Your task to perform on an android device: find snoozed emails in the gmail app Image 0: 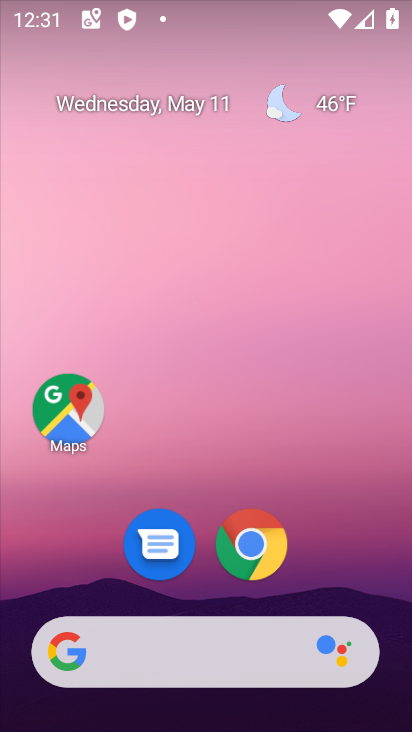
Step 0: drag from (322, 290) to (290, 141)
Your task to perform on an android device: find snoozed emails in the gmail app Image 1: 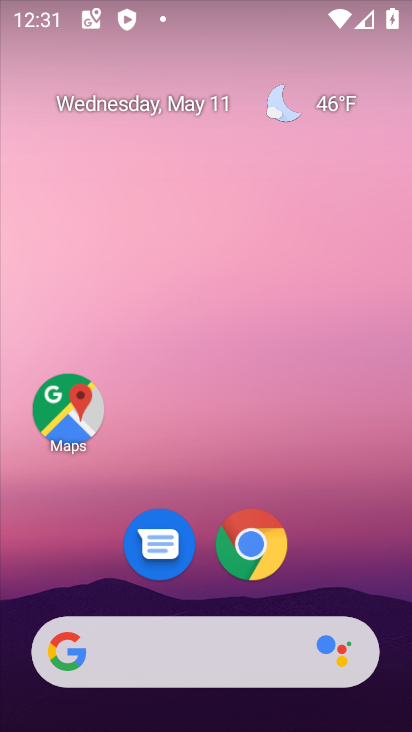
Step 1: drag from (387, 641) to (267, 183)
Your task to perform on an android device: find snoozed emails in the gmail app Image 2: 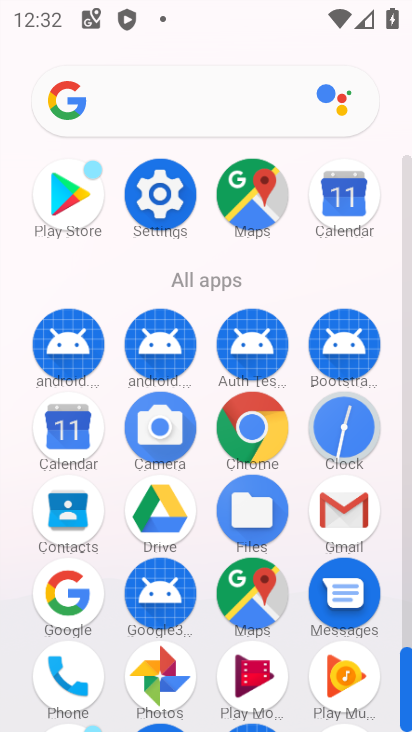
Step 2: click (340, 504)
Your task to perform on an android device: find snoozed emails in the gmail app Image 3: 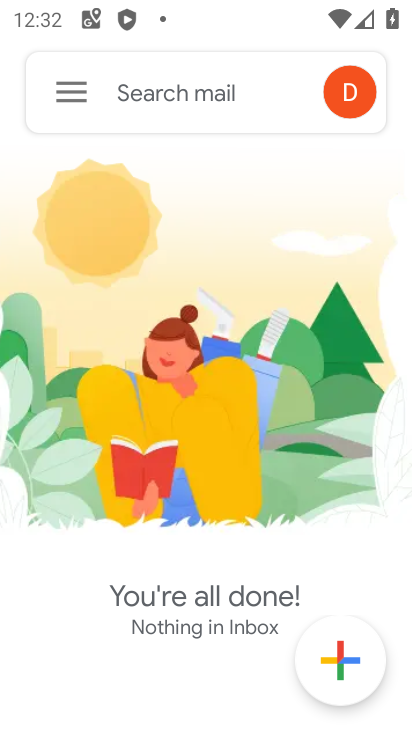
Step 3: click (67, 91)
Your task to perform on an android device: find snoozed emails in the gmail app Image 4: 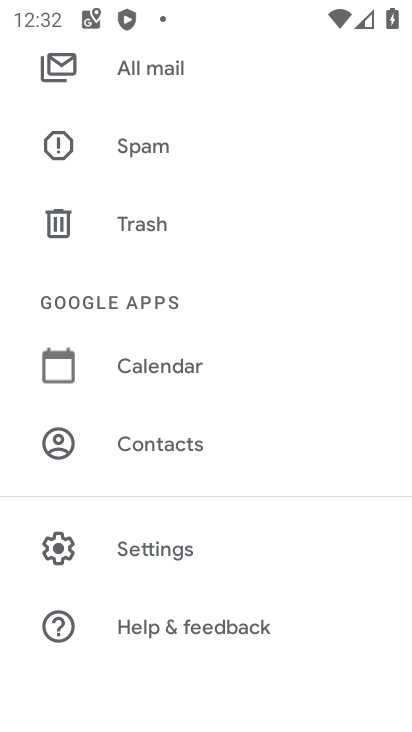
Step 4: drag from (215, 163) to (231, 488)
Your task to perform on an android device: find snoozed emails in the gmail app Image 5: 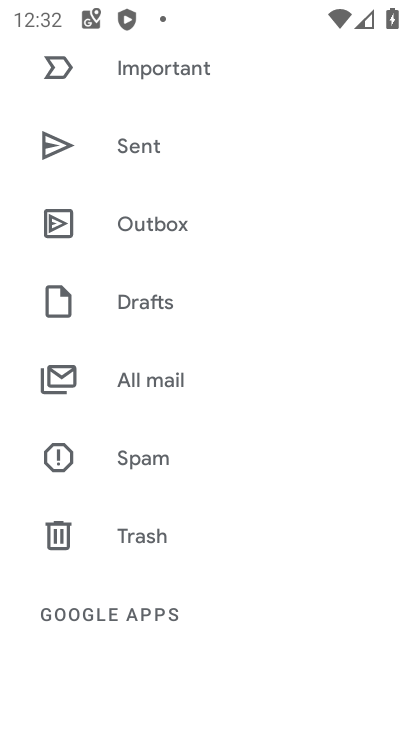
Step 5: drag from (244, 104) to (215, 418)
Your task to perform on an android device: find snoozed emails in the gmail app Image 6: 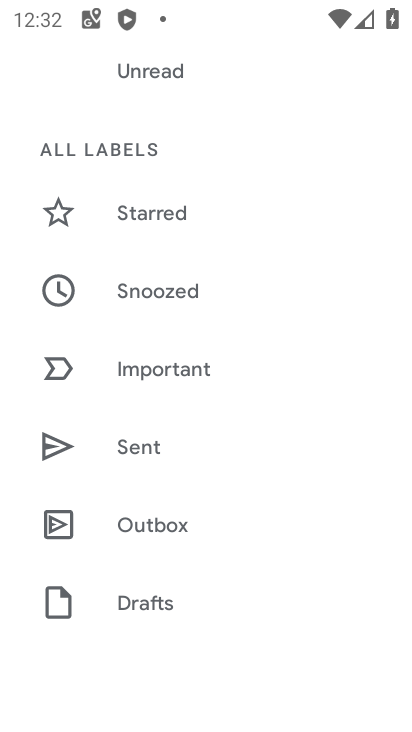
Step 6: click (154, 288)
Your task to perform on an android device: find snoozed emails in the gmail app Image 7: 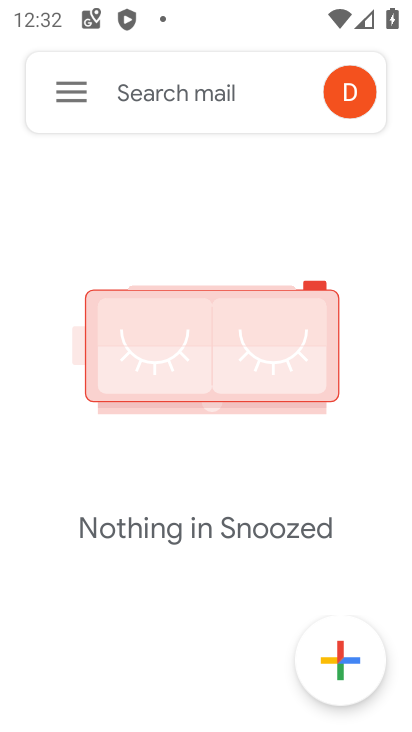
Step 7: task complete